Your task to perform on an android device: Open CNN.com Image 0: 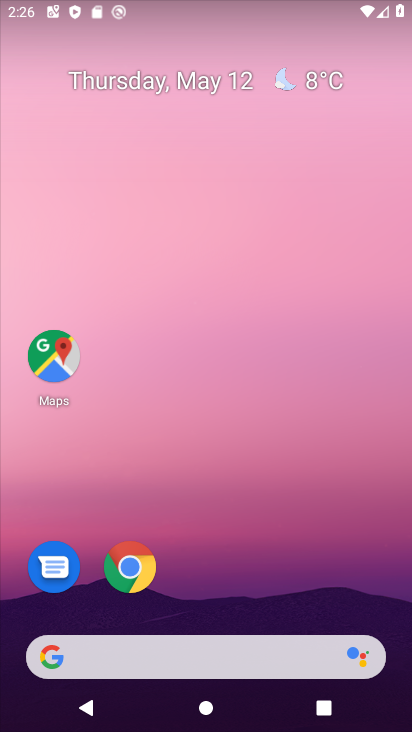
Step 0: press home button
Your task to perform on an android device: Open CNN.com Image 1: 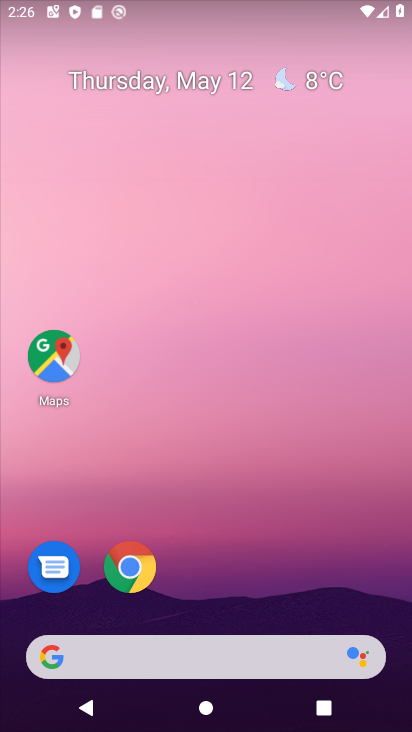
Step 1: click (127, 561)
Your task to perform on an android device: Open CNN.com Image 2: 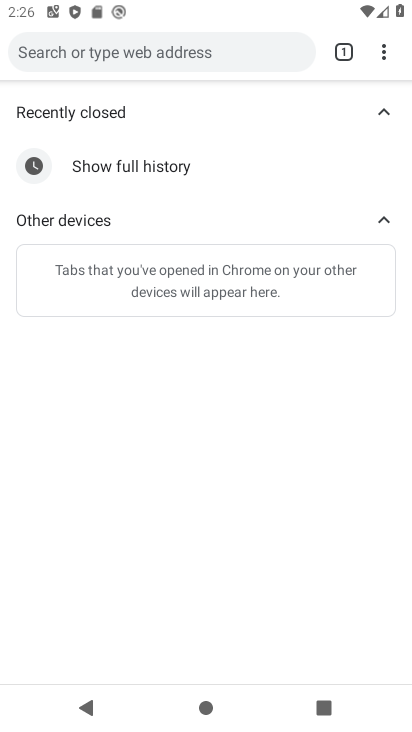
Step 2: click (385, 54)
Your task to perform on an android device: Open CNN.com Image 3: 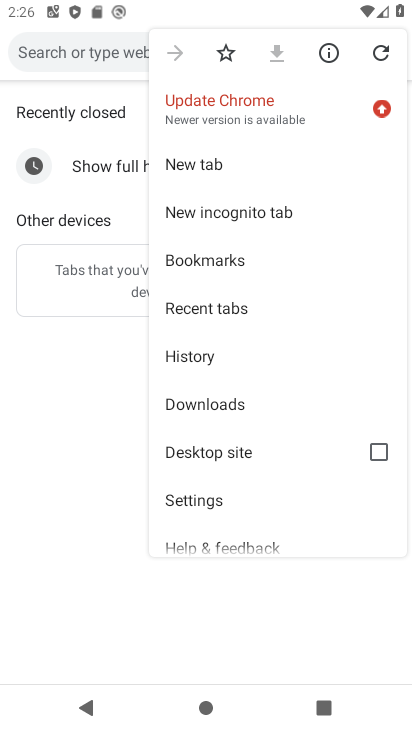
Step 3: click (232, 500)
Your task to perform on an android device: Open CNN.com Image 4: 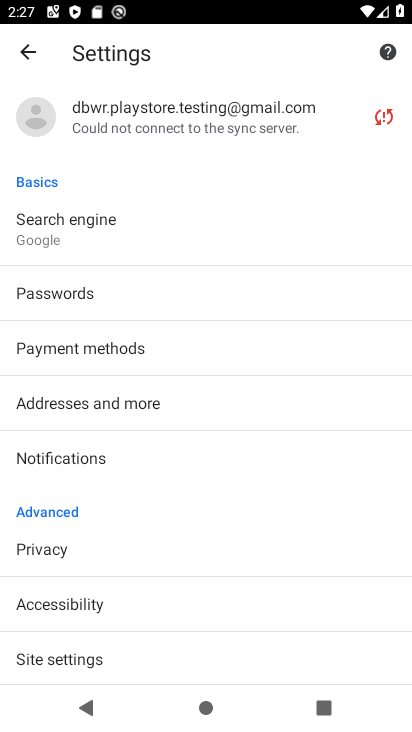
Step 4: click (29, 49)
Your task to perform on an android device: Open CNN.com Image 5: 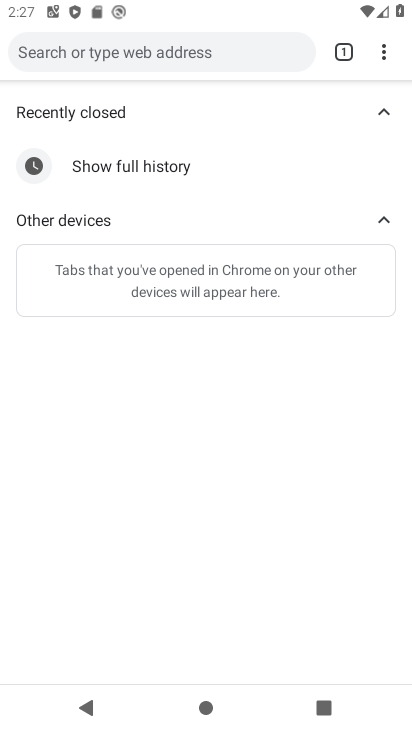
Step 5: click (339, 56)
Your task to perform on an android device: Open CNN.com Image 6: 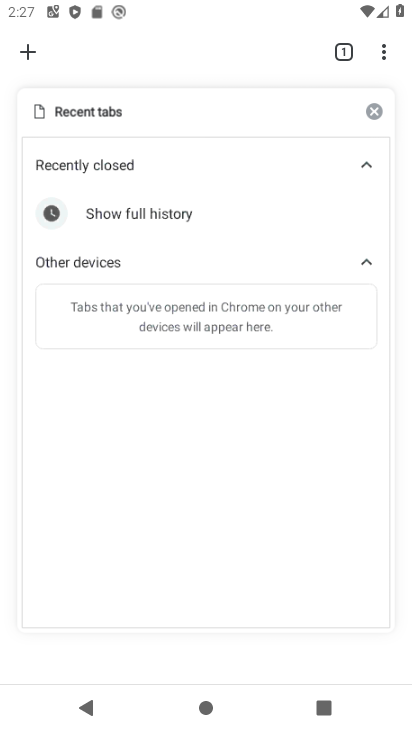
Step 6: click (377, 109)
Your task to perform on an android device: Open CNN.com Image 7: 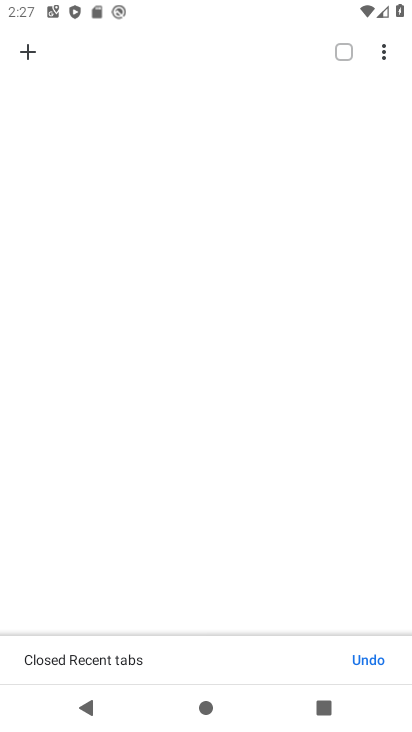
Step 7: click (42, 59)
Your task to perform on an android device: Open CNN.com Image 8: 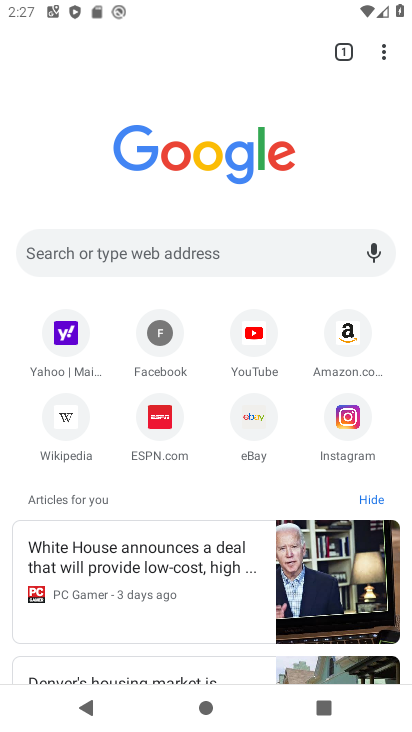
Step 8: click (80, 256)
Your task to perform on an android device: Open CNN.com Image 9: 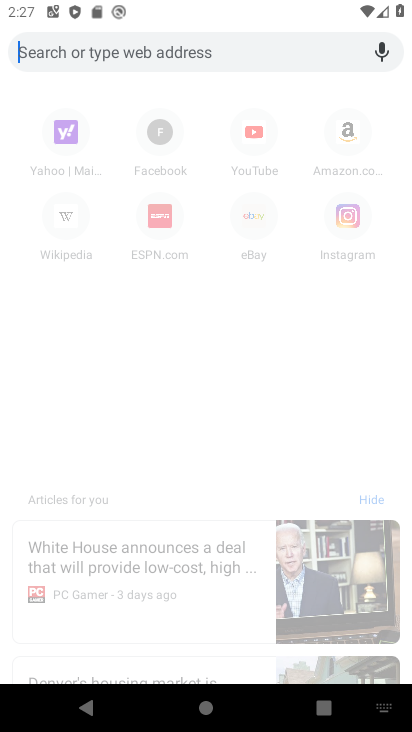
Step 9: type "cnn.com"
Your task to perform on an android device: Open CNN.com Image 10: 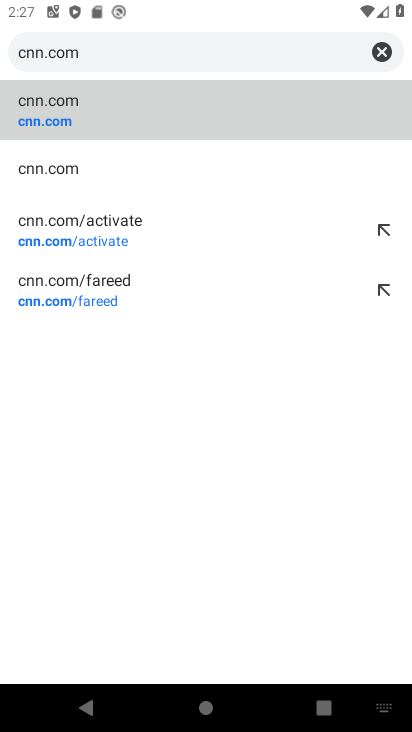
Step 10: click (74, 114)
Your task to perform on an android device: Open CNN.com Image 11: 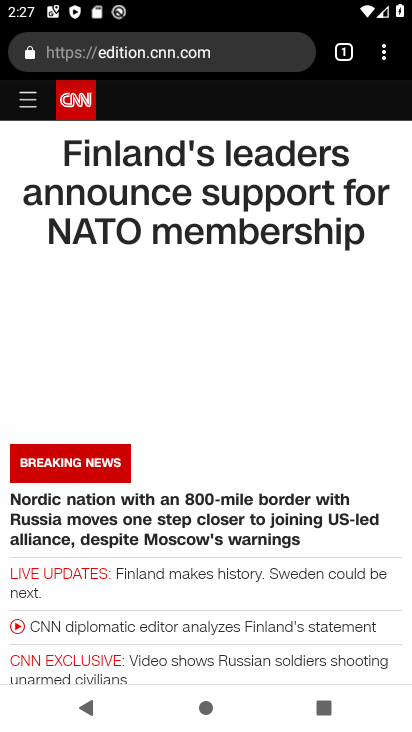
Step 11: task complete